Your task to perform on an android device: turn off location Image 0: 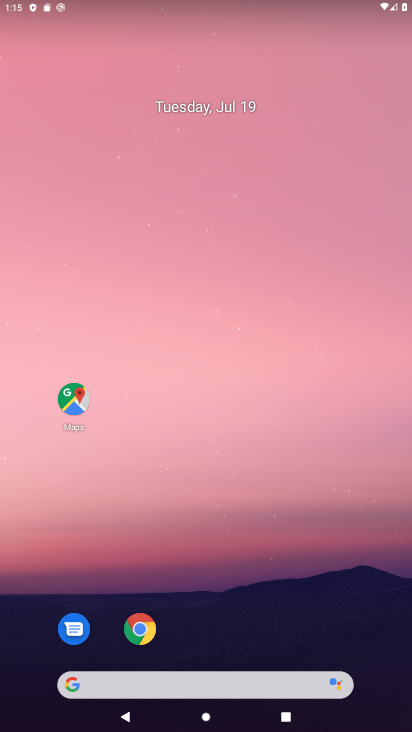
Step 0: drag from (182, 674) to (139, 21)
Your task to perform on an android device: turn off location Image 1: 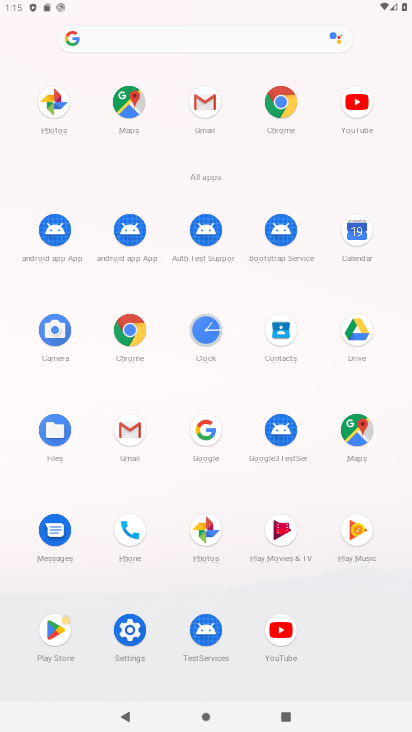
Step 1: click (127, 628)
Your task to perform on an android device: turn off location Image 2: 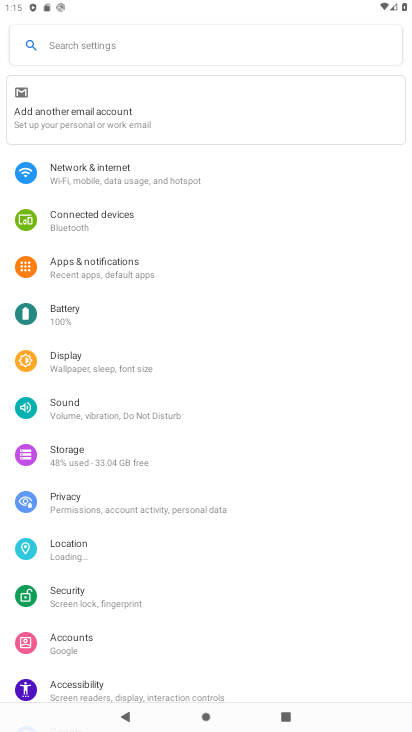
Step 2: click (86, 545)
Your task to perform on an android device: turn off location Image 3: 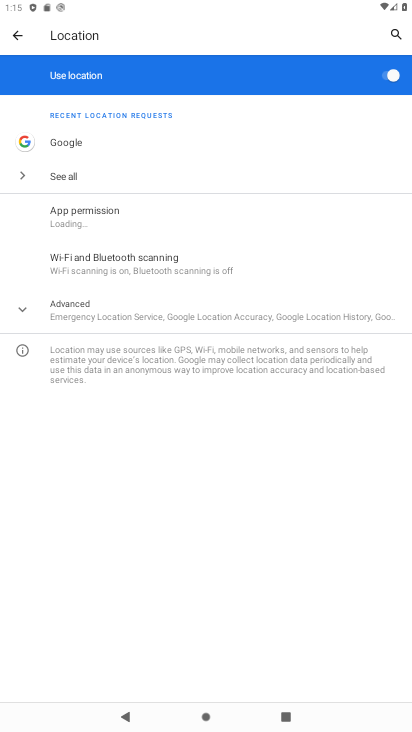
Step 3: click (386, 72)
Your task to perform on an android device: turn off location Image 4: 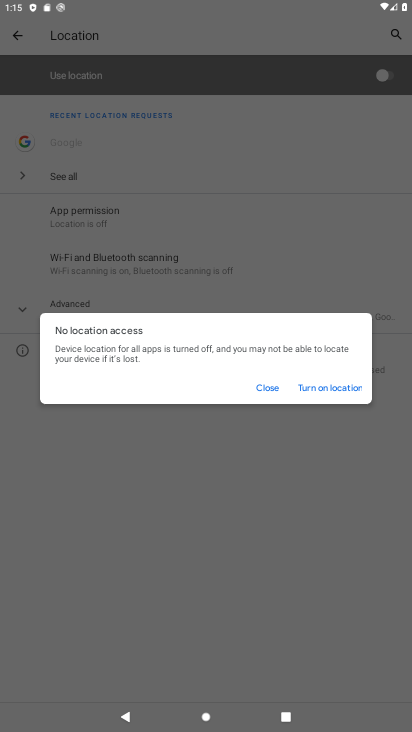
Step 4: click (268, 384)
Your task to perform on an android device: turn off location Image 5: 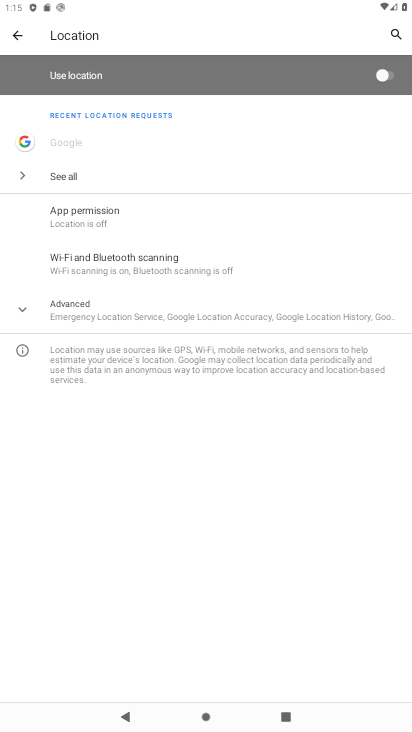
Step 5: task complete